Your task to perform on an android device: Open Youtube and go to the subscriptions tab Image 0: 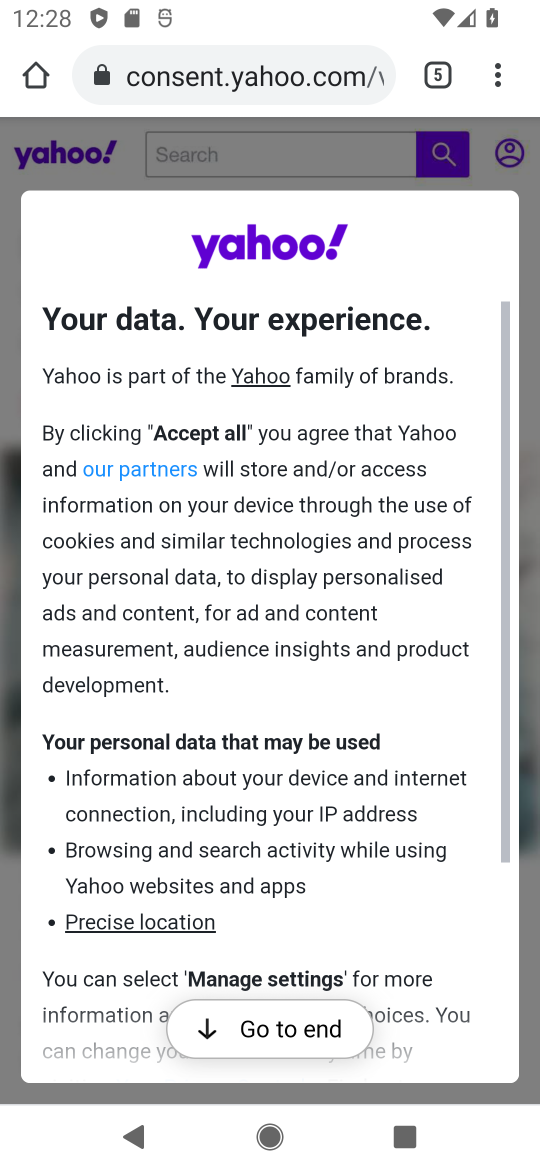
Step 0: press back button
Your task to perform on an android device: Open Youtube and go to the subscriptions tab Image 1: 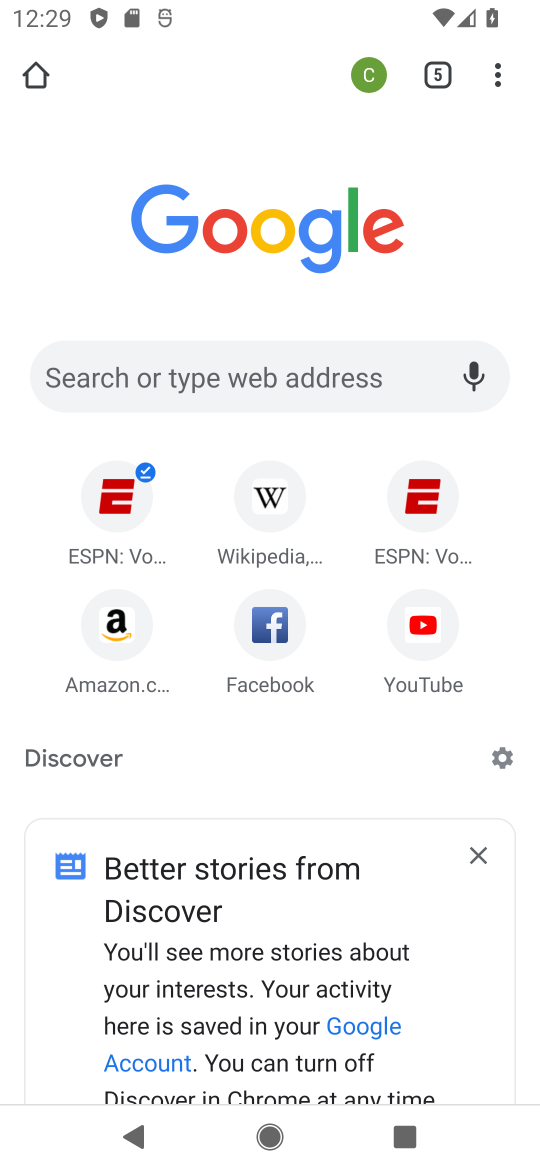
Step 1: press back button
Your task to perform on an android device: Open Youtube and go to the subscriptions tab Image 2: 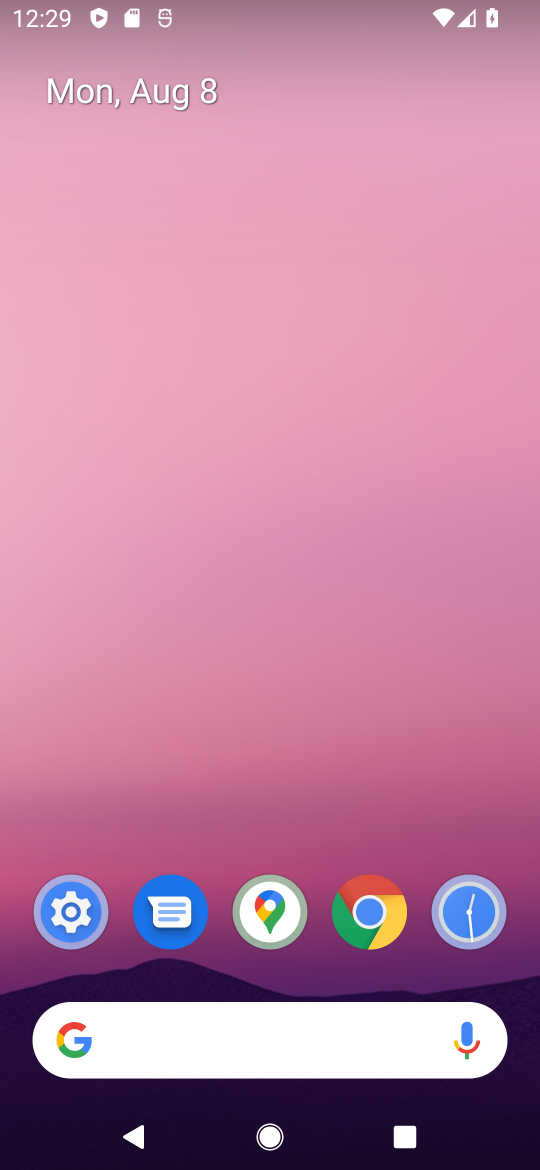
Step 2: drag from (168, 828) to (3, 767)
Your task to perform on an android device: Open Youtube and go to the subscriptions tab Image 3: 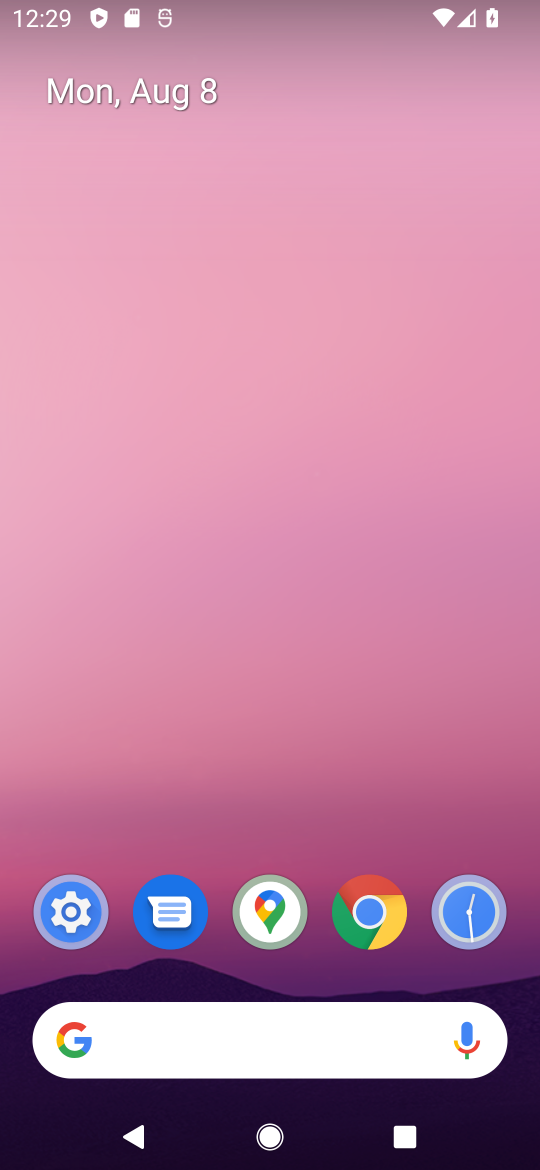
Step 3: click (160, 881)
Your task to perform on an android device: Open Youtube and go to the subscriptions tab Image 4: 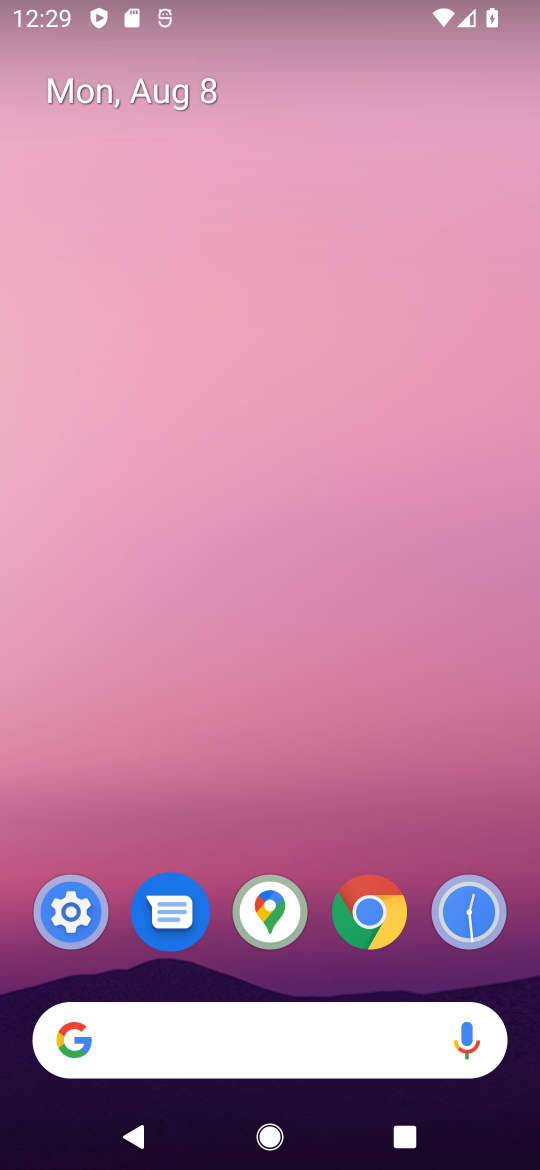
Step 4: drag from (160, 881) to (269, 208)
Your task to perform on an android device: Open Youtube and go to the subscriptions tab Image 5: 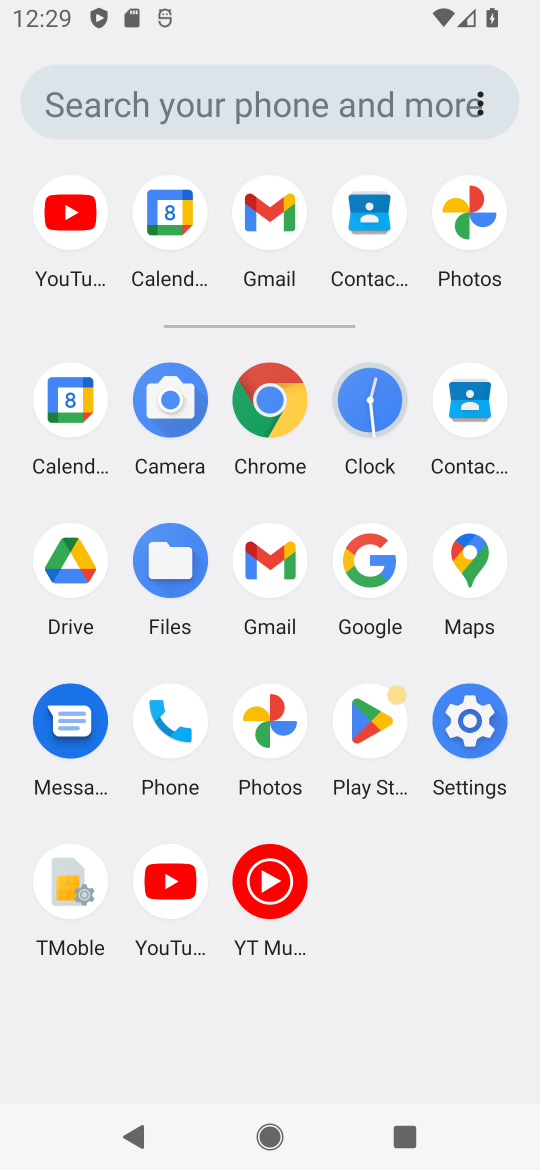
Step 5: click (191, 879)
Your task to perform on an android device: Open Youtube and go to the subscriptions tab Image 6: 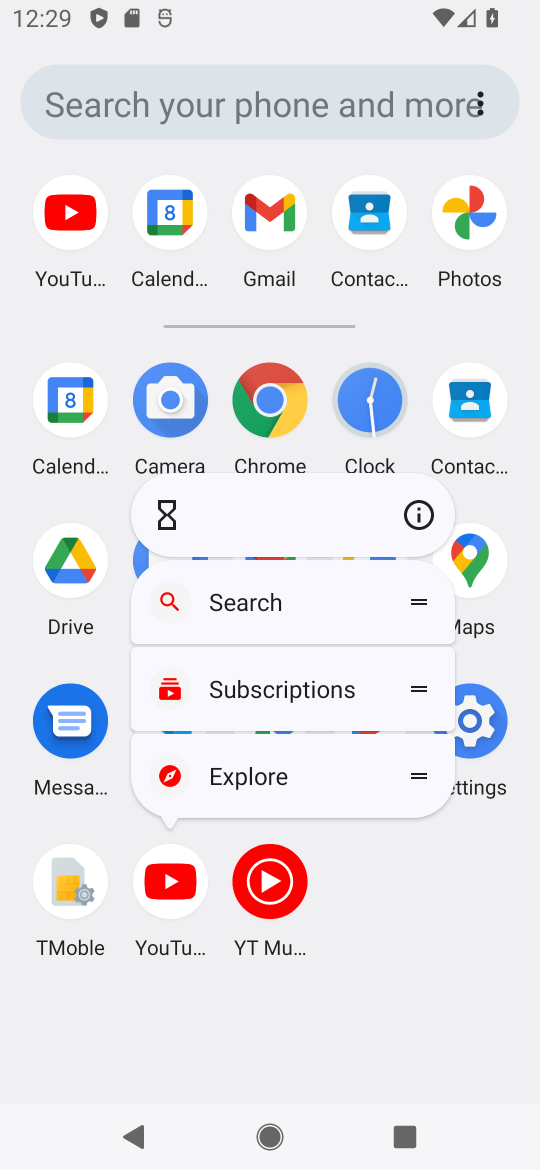
Step 6: click (151, 870)
Your task to perform on an android device: Open Youtube and go to the subscriptions tab Image 7: 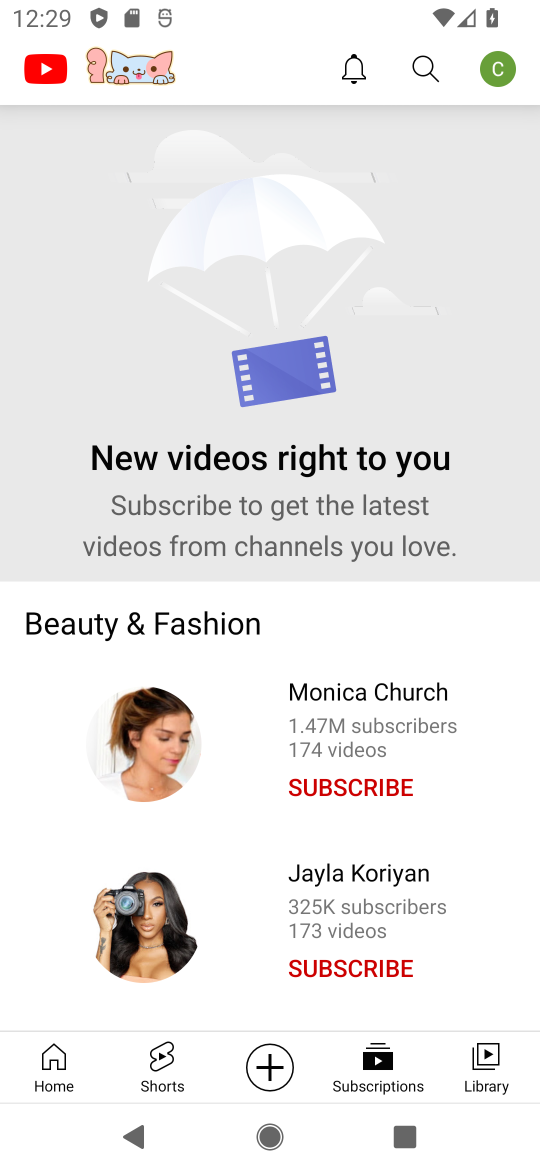
Step 7: click (373, 1068)
Your task to perform on an android device: Open Youtube and go to the subscriptions tab Image 8: 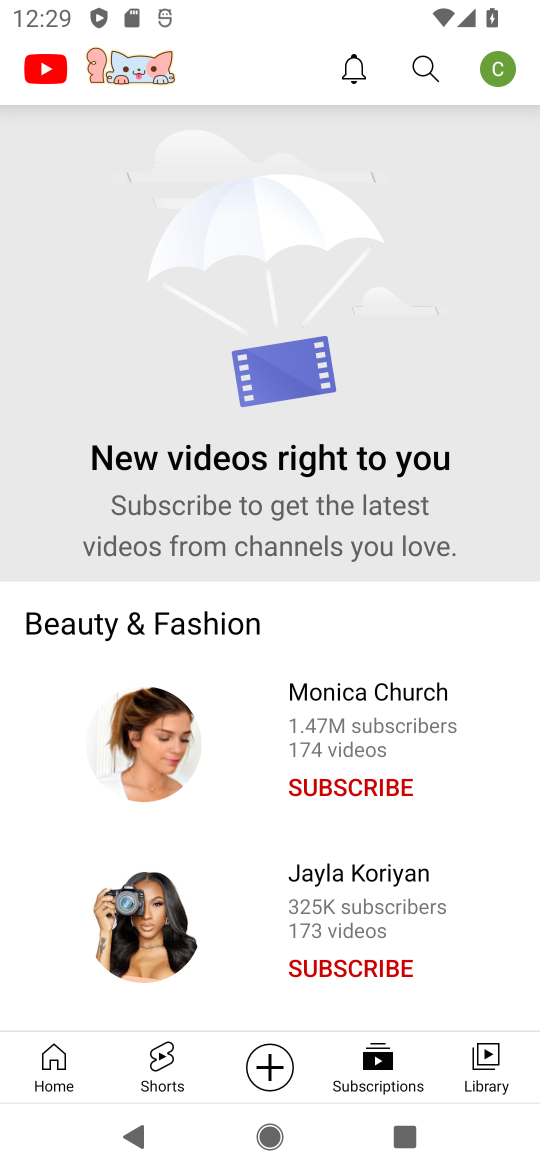
Step 8: task complete